Your task to perform on an android device: Open privacy settings Image 0: 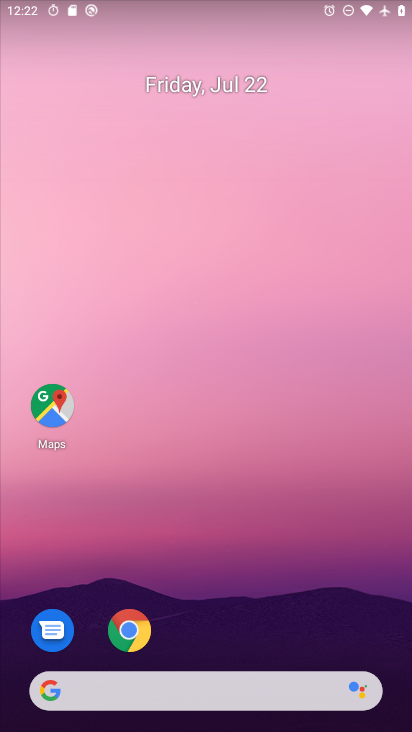
Step 0: drag from (241, 646) to (212, 300)
Your task to perform on an android device: Open privacy settings Image 1: 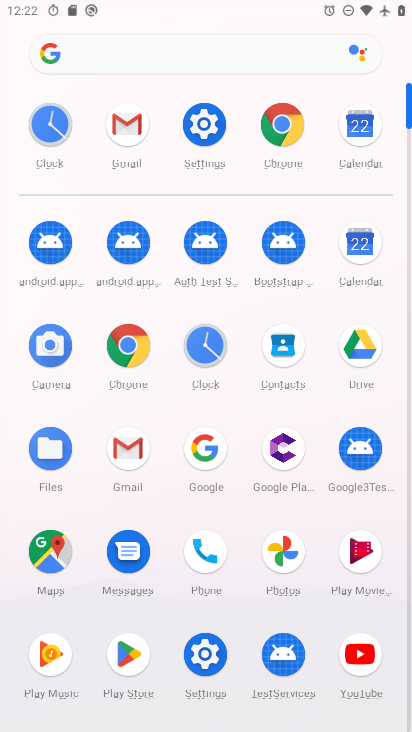
Step 1: click (204, 128)
Your task to perform on an android device: Open privacy settings Image 2: 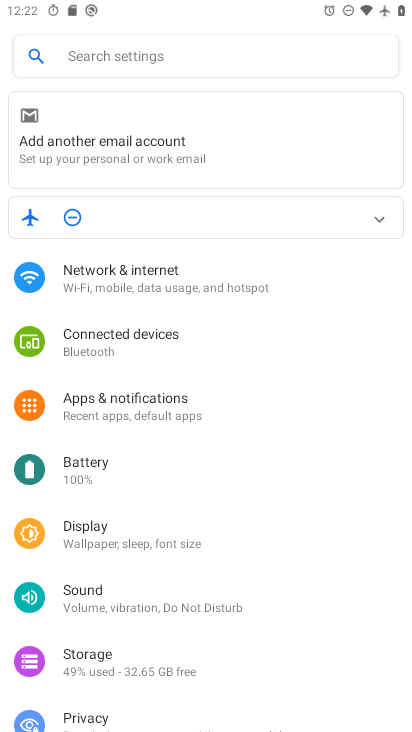
Step 2: drag from (287, 665) to (305, 251)
Your task to perform on an android device: Open privacy settings Image 3: 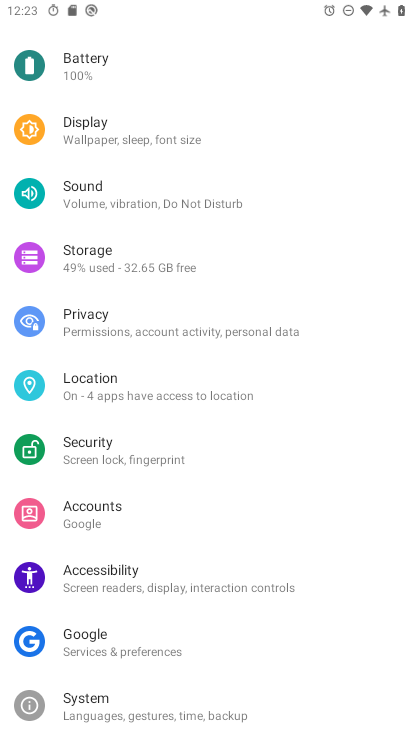
Step 3: click (83, 330)
Your task to perform on an android device: Open privacy settings Image 4: 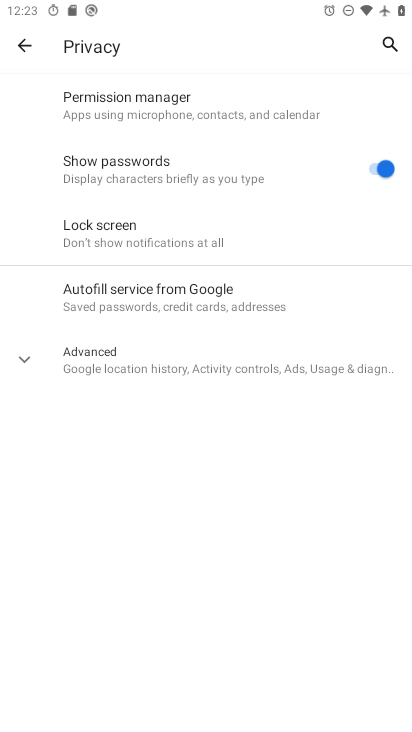
Step 4: task complete